Your task to perform on an android device: Open Youtube and go to "Your channel" Image 0: 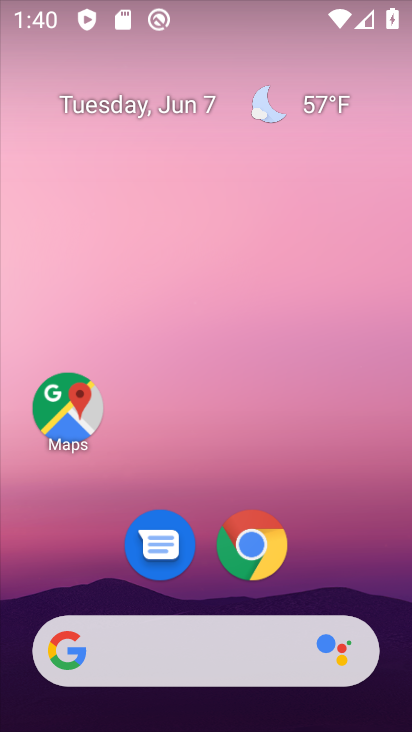
Step 0: drag from (356, 516) to (257, 8)
Your task to perform on an android device: Open Youtube and go to "Your channel" Image 1: 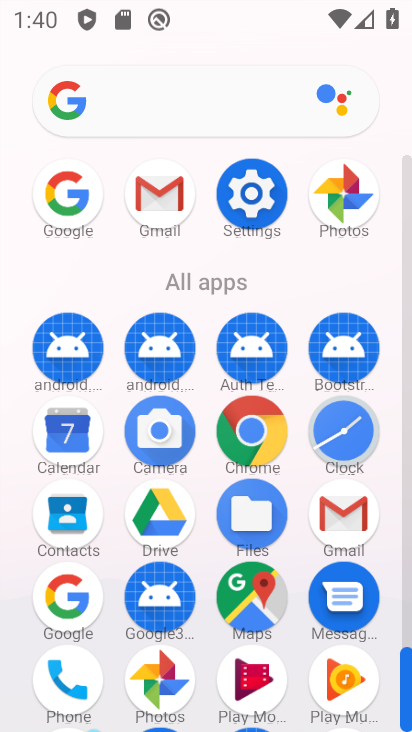
Step 1: drag from (300, 685) to (244, 119)
Your task to perform on an android device: Open Youtube and go to "Your channel" Image 2: 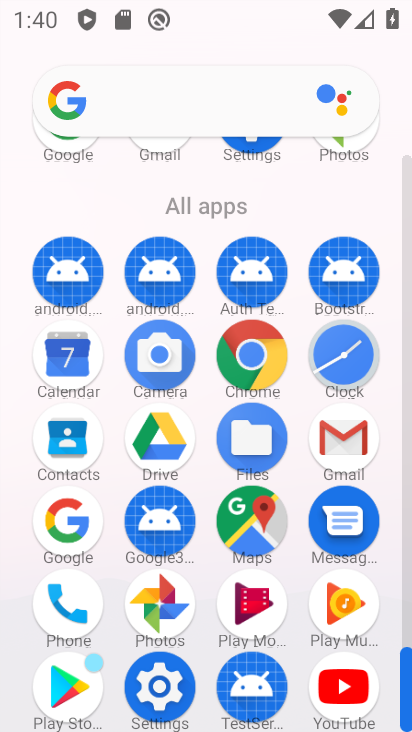
Step 2: click (348, 681)
Your task to perform on an android device: Open Youtube and go to "Your channel" Image 3: 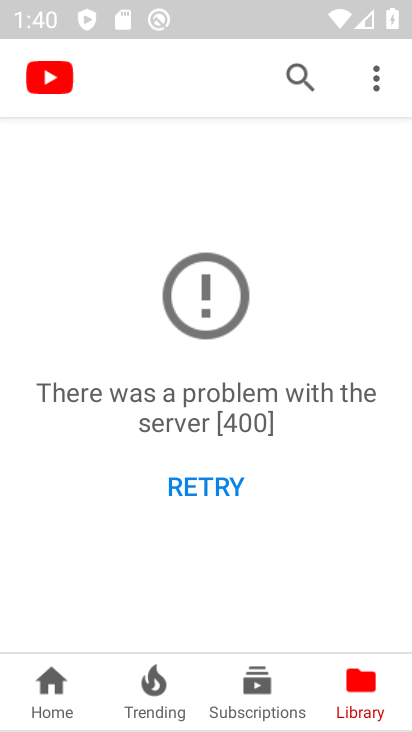
Step 3: click (380, 80)
Your task to perform on an android device: Open Youtube and go to "Your channel" Image 4: 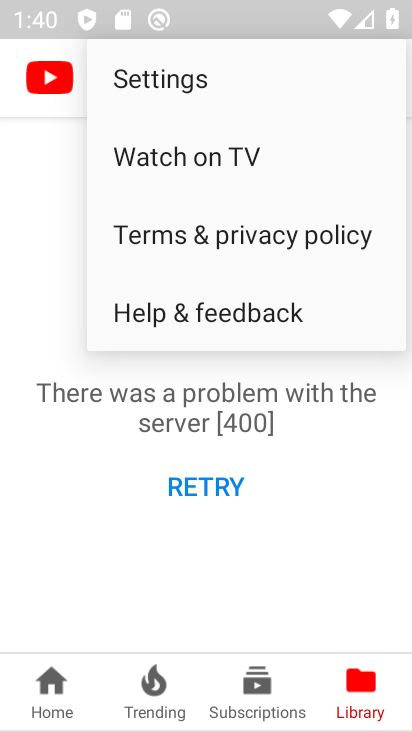
Step 4: click (39, 704)
Your task to perform on an android device: Open Youtube and go to "Your channel" Image 5: 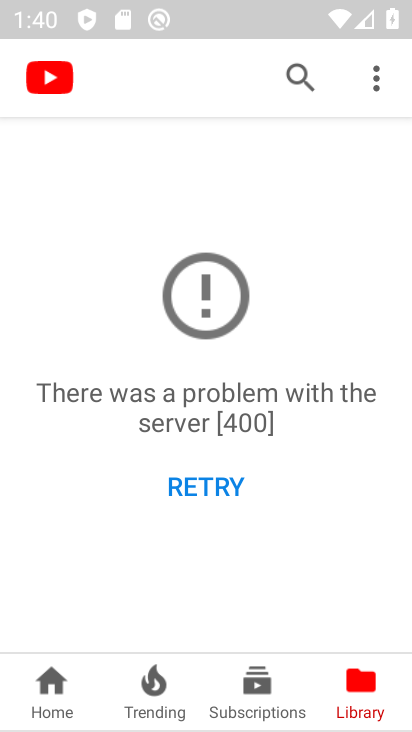
Step 5: click (55, 712)
Your task to perform on an android device: Open Youtube and go to "Your channel" Image 6: 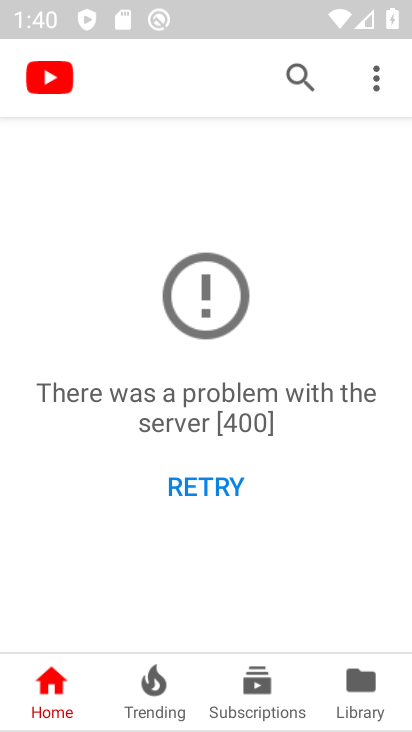
Step 6: click (378, 63)
Your task to perform on an android device: Open Youtube and go to "Your channel" Image 7: 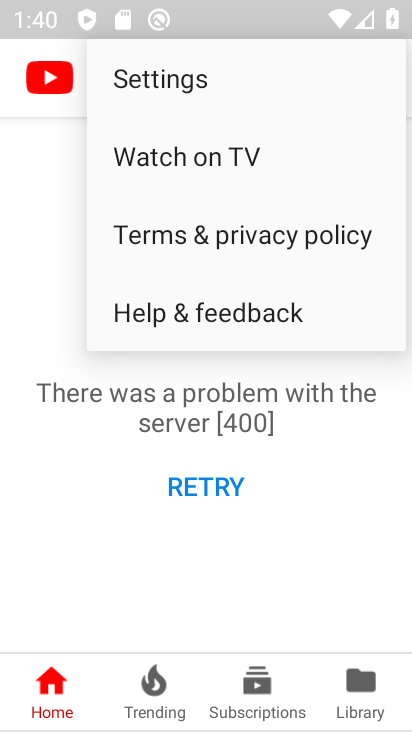
Step 7: click (226, 70)
Your task to perform on an android device: Open Youtube and go to "Your channel" Image 8: 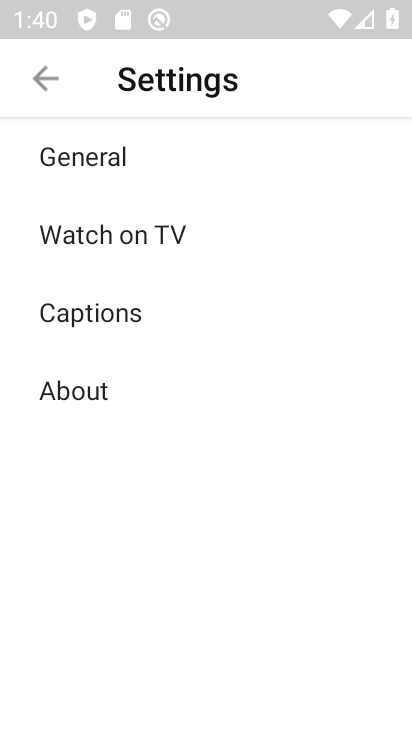
Step 8: click (220, 139)
Your task to perform on an android device: Open Youtube and go to "Your channel" Image 9: 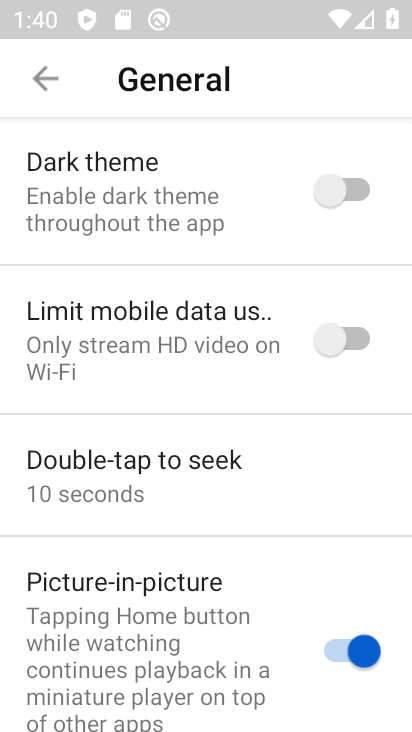
Step 9: task complete